Your task to perform on an android device: set an alarm Image 0: 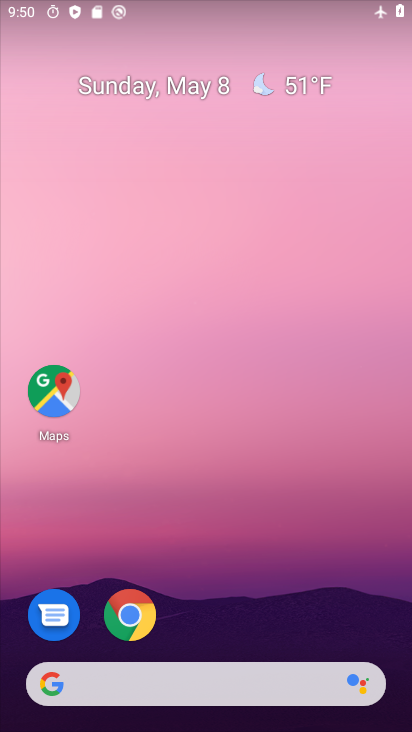
Step 0: drag from (231, 614) to (185, 161)
Your task to perform on an android device: set an alarm Image 1: 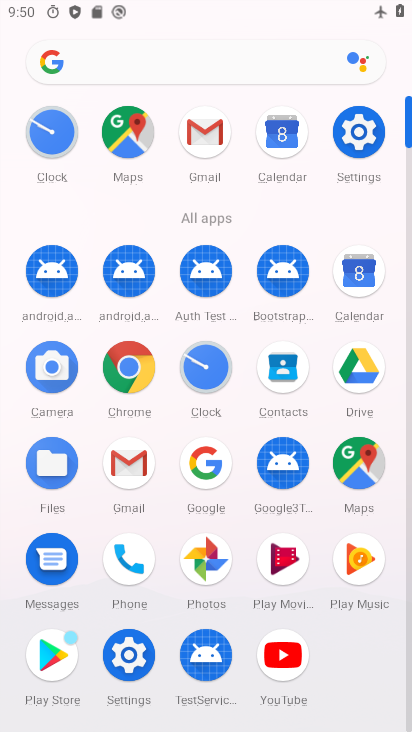
Step 1: click (52, 127)
Your task to perform on an android device: set an alarm Image 2: 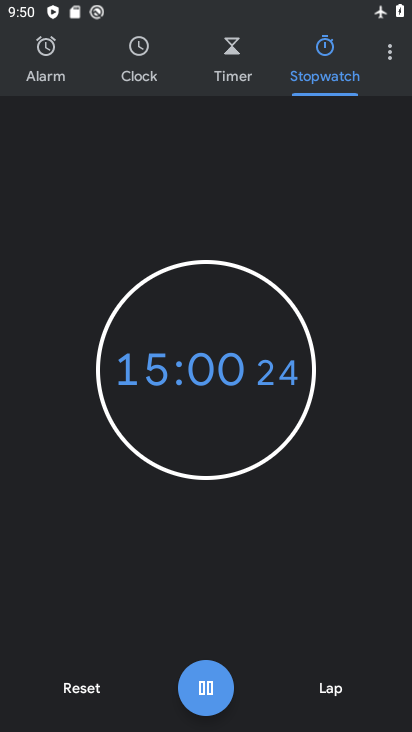
Step 2: click (42, 66)
Your task to perform on an android device: set an alarm Image 3: 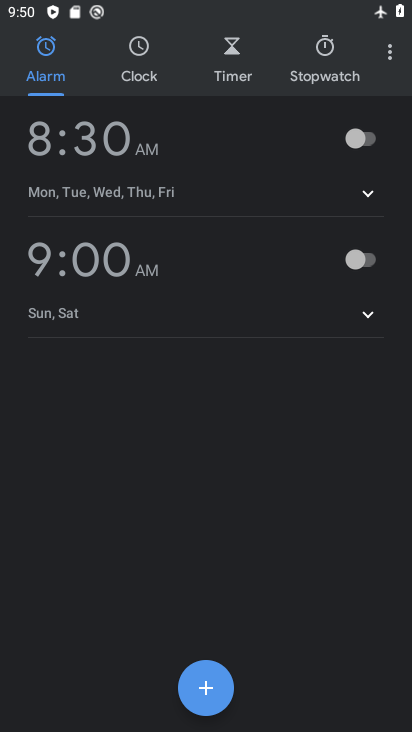
Step 3: click (365, 147)
Your task to perform on an android device: set an alarm Image 4: 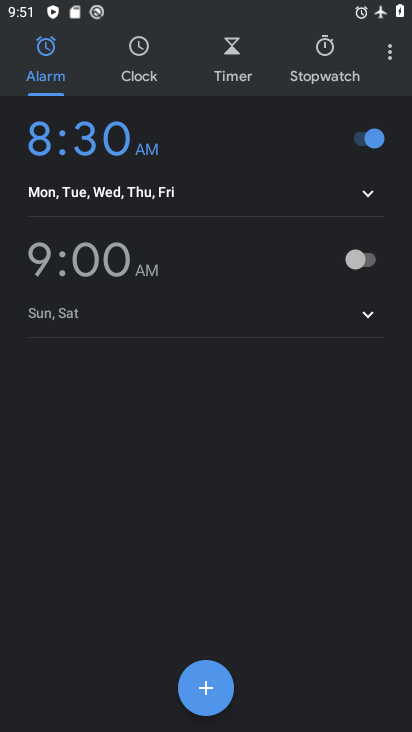
Step 4: task complete